Your task to perform on an android device: turn on data saver in the chrome app Image 0: 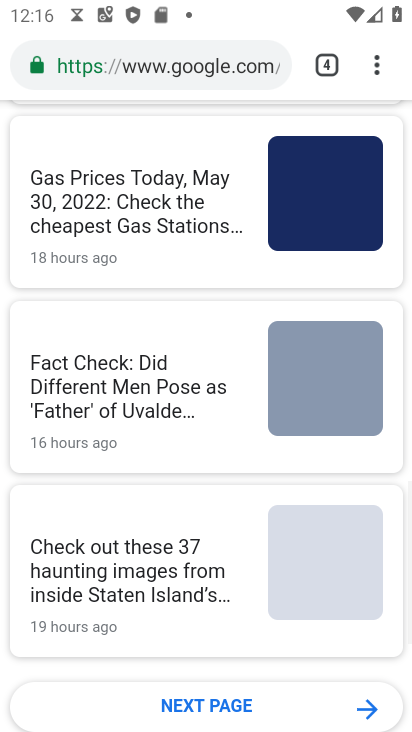
Step 0: press home button
Your task to perform on an android device: turn on data saver in the chrome app Image 1: 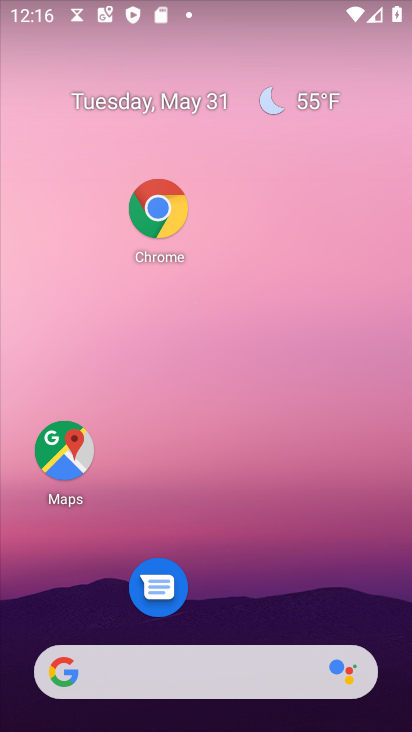
Step 1: click (170, 191)
Your task to perform on an android device: turn on data saver in the chrome app Image 2: 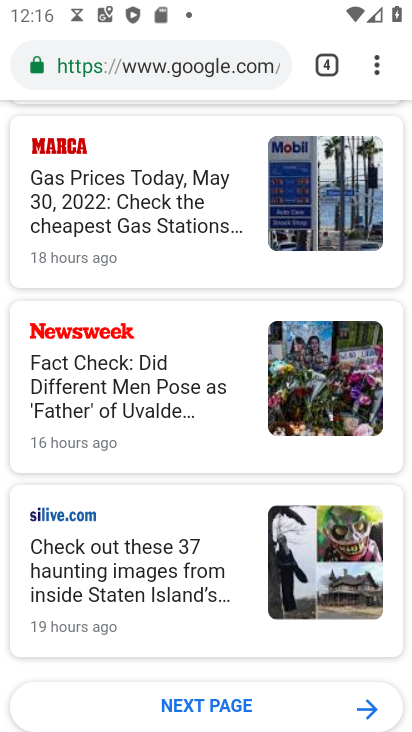
Step 2: click (376, 72)
Your task to perform on an android device: turn on data saver in the chrome app Image 3: 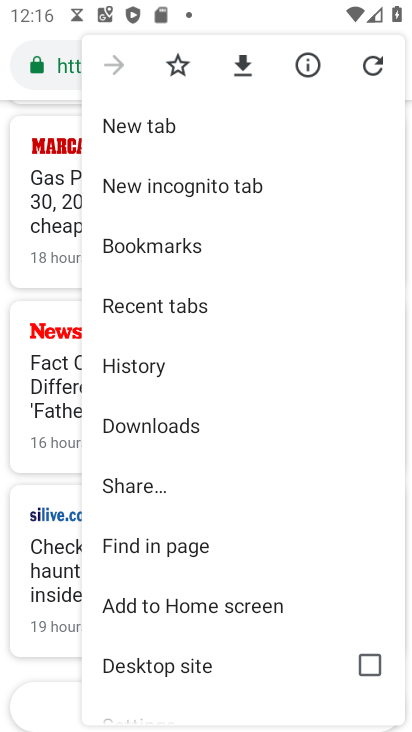
Step 3: drag from (190, 688) to (209, 526)
Your task to perform on an android device: turn on data saver in the chrome app Image 4: 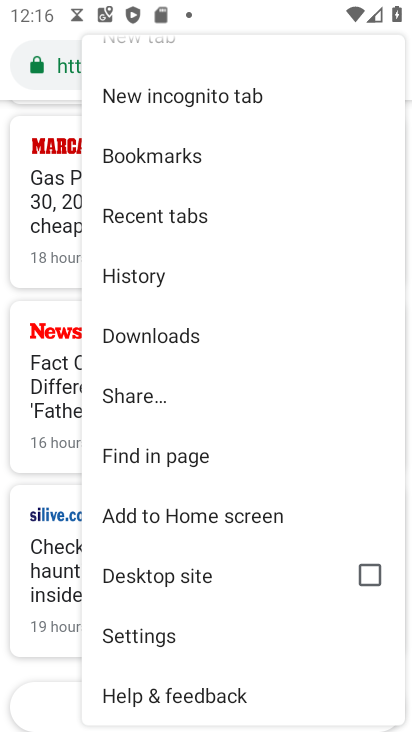
Step 4: click (167, 639)
Your task to perform on an android device: turn on data saver in the chrome app Image 5: 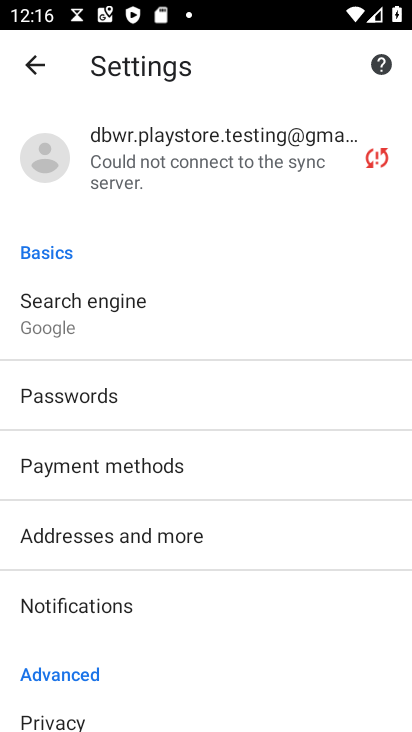
Step 5: drag from (189, 651) to (168, 250)
Your task to perform on an android device: turn on data saver in the chrome app Image 6: 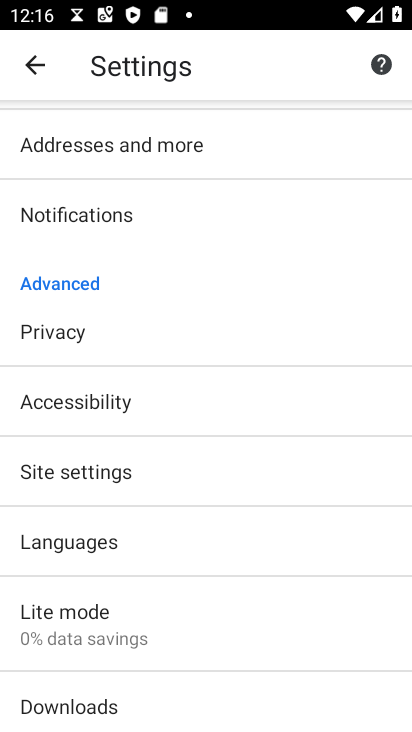
Step 6: click (81, 634)
Your task to perform on an android device: turn on data saver in the chrome app Image 7: 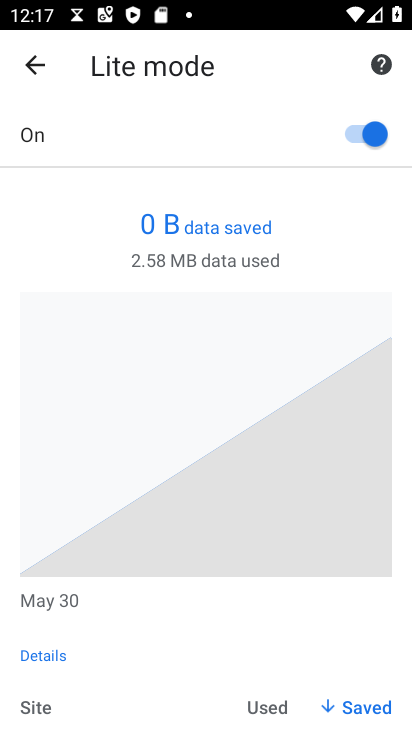
Step 7: task complete